Your task to perform on an android device: turn on javascript in the chrome app Image 0: 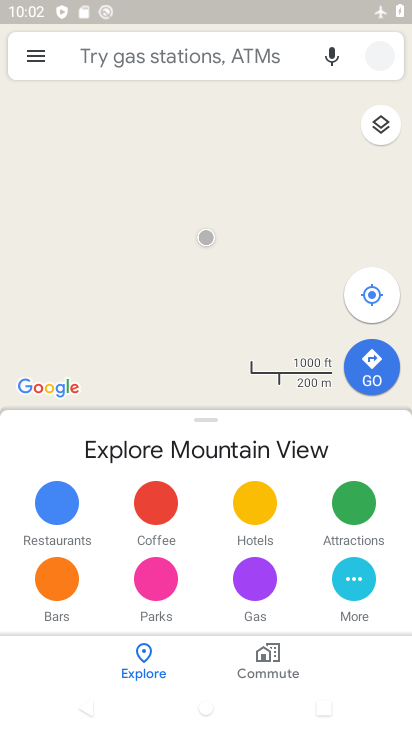
Step 0: press home button
Your task to perform on an android device: turn on javascript in the chrome app Image 1: 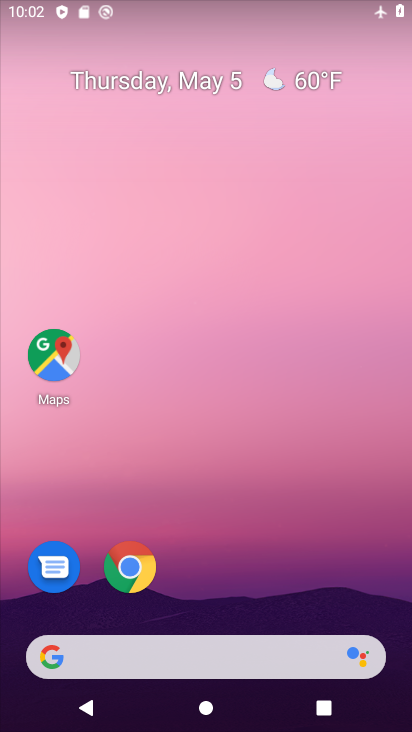
Step 1: click (135, 583)
Your task to perform on an android device: turn on javascript in the chrome app Image 2: 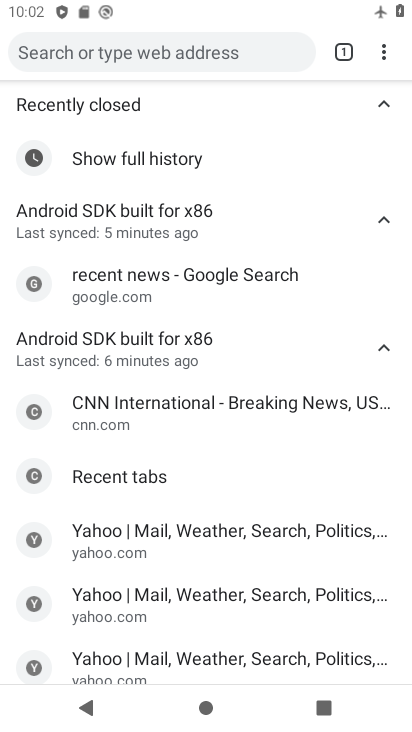
Step 2: click (384, 41)
Your task to perform on an android device: turn on javascript in the chrome app Image 3: 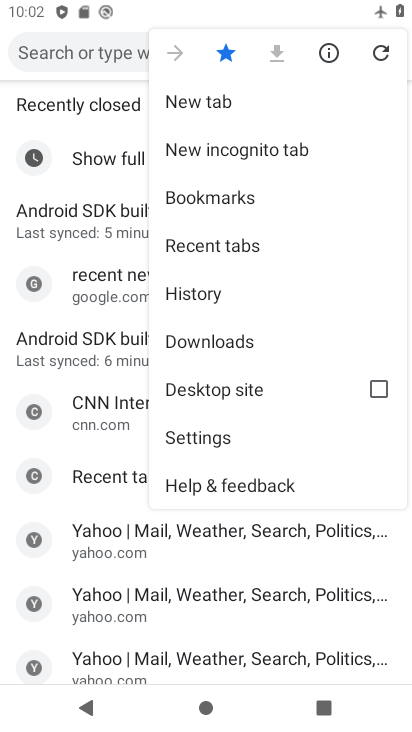
Step 3: click (229, 438)
Your task to perform on an android device: turn on javascript in the chrome app Image 4: 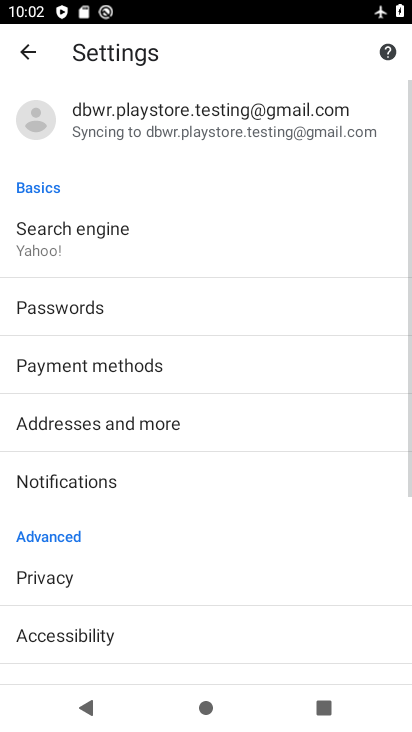
Step 4: drag from (152, 626) to (188, 300)
Your task to perform on an android device: turn on javascript in the chrome app Image 5: 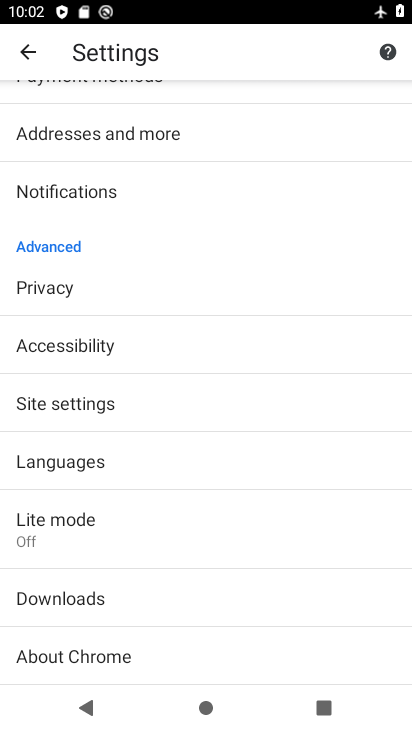
Step 5: click (101, 409)
Your task to perform on an android device: turn on javascript in the chrome app Image 6: 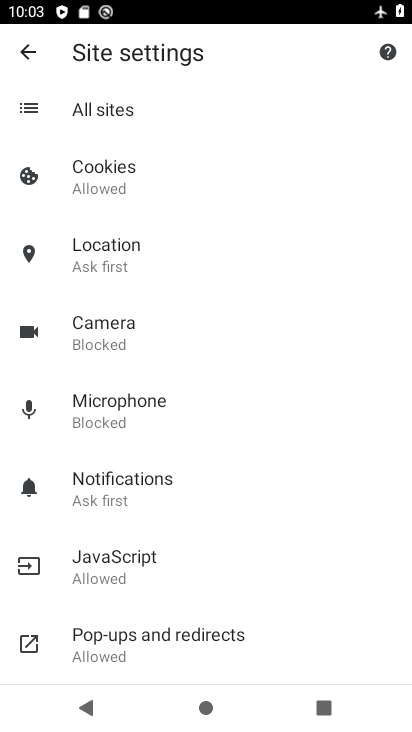
Step 6: click (162, 560)
Your task to perform on an android device: turn on javascript in the chrome app Image 7: 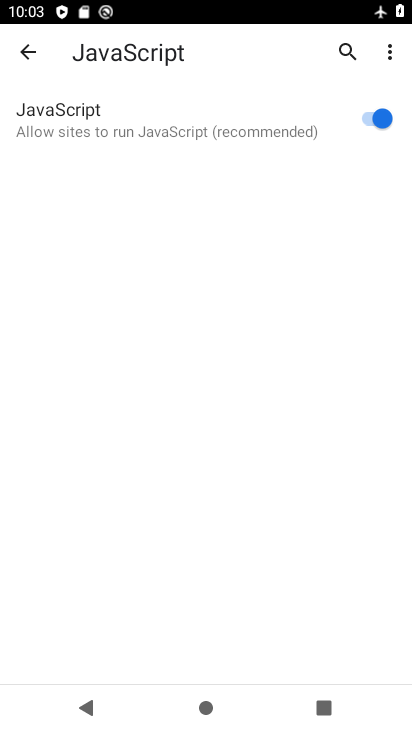
Step 7: task complete